Your task to perform on an android device: Go to network settings Image 0: 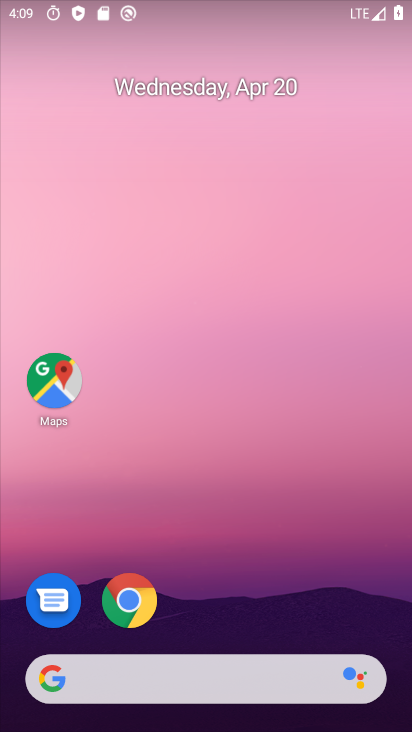
Step 0: drag from (282, 499) to (320, 118)
Your task to perform on an android device: Go to network settings Image 1: 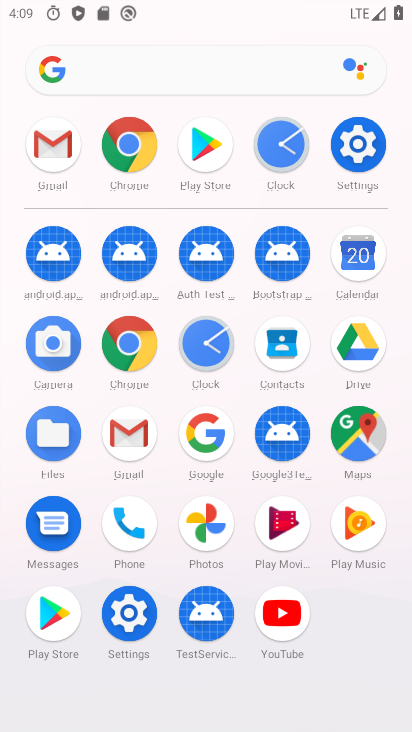
Step 1: click (380, 134)
Your task to perform on an android device: Go to network settings Image 2: 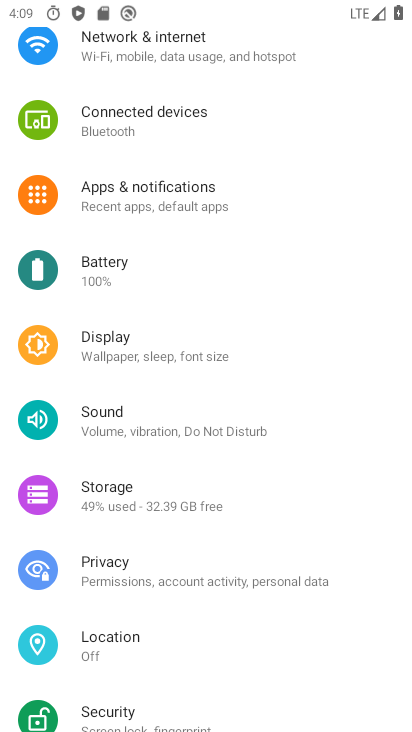
Step 2: click (179, 55)
Your task to perform on an android device: Go to network settings Image 3: 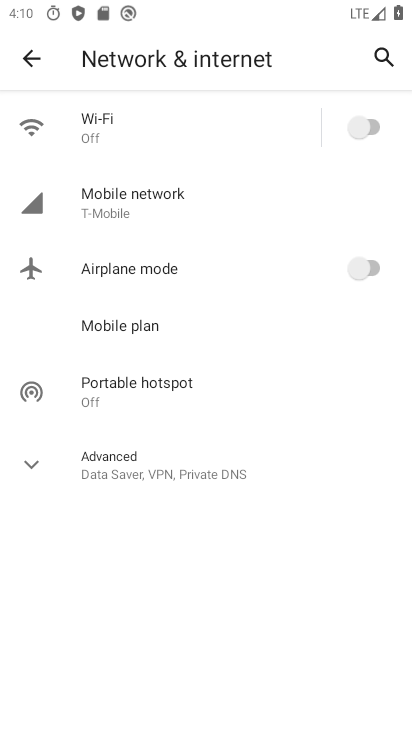
Step 3: task complete